Your task to perform on an android device: Is it going to rain tomorrow? Image 0: 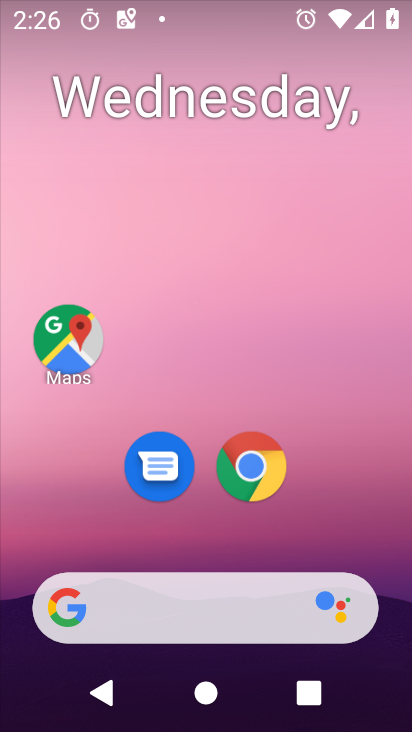
Step 0: drag from (313, 427) to (263, 90)
Your task to perform on an android device: Is it going to rain tomorrow? Image 1: 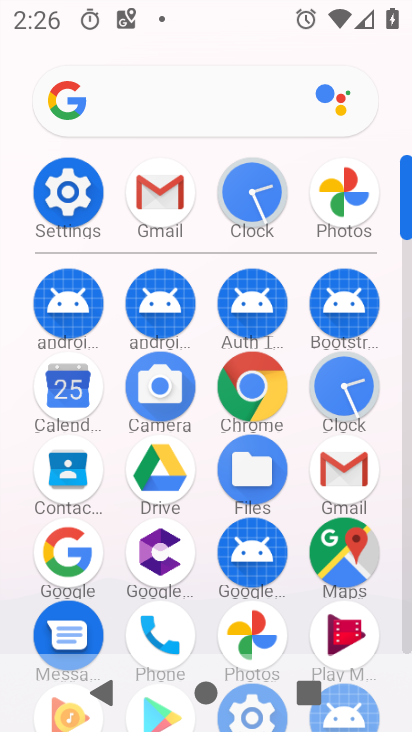
Step 1: click (166, 109)
Your task to perform on an android device: Is it going to rain tomorrow? Image 2: 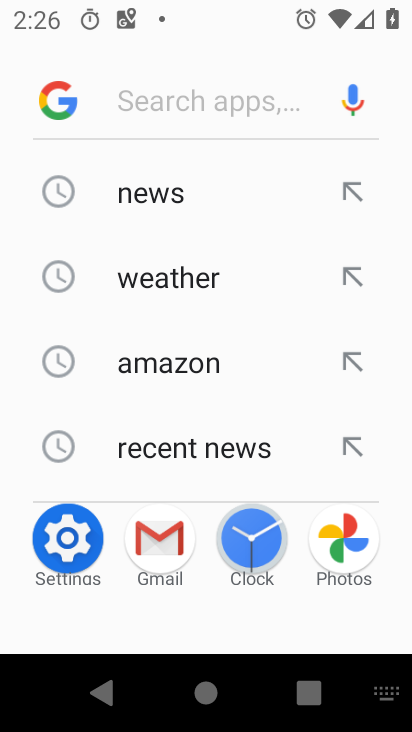
Step 2: click (193, 282)
Your task to perform on an android device: Is it going to rain tomorrow? Image 3: 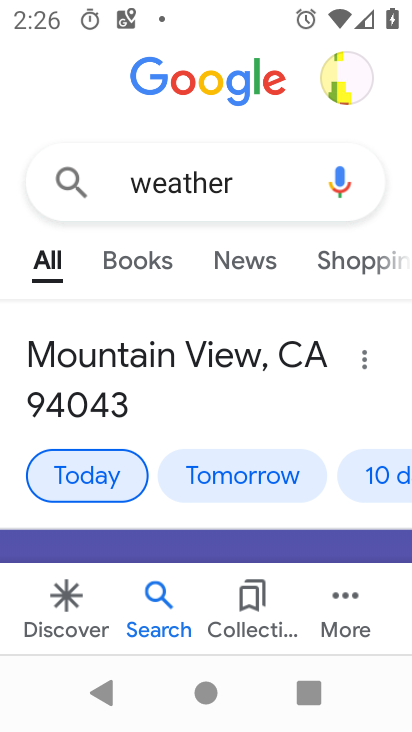
Step 3: click (210, 481)
Your task to perform on an android device: Is it going to rain tomorrow? Image 4: 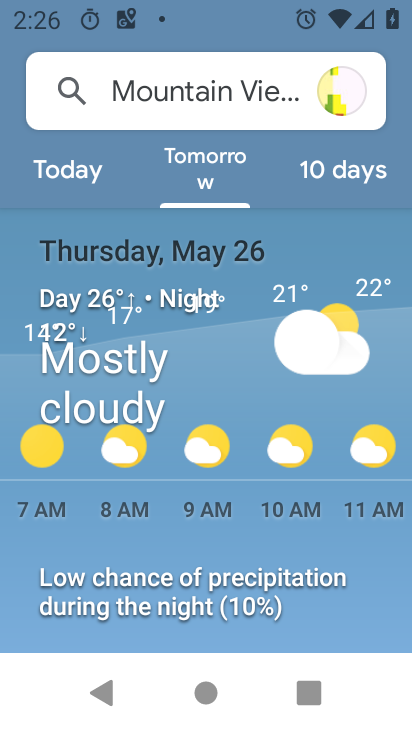
Step 4: task complete